Your task to perform on an android device: turn off javascript in the chrome app Image 0: 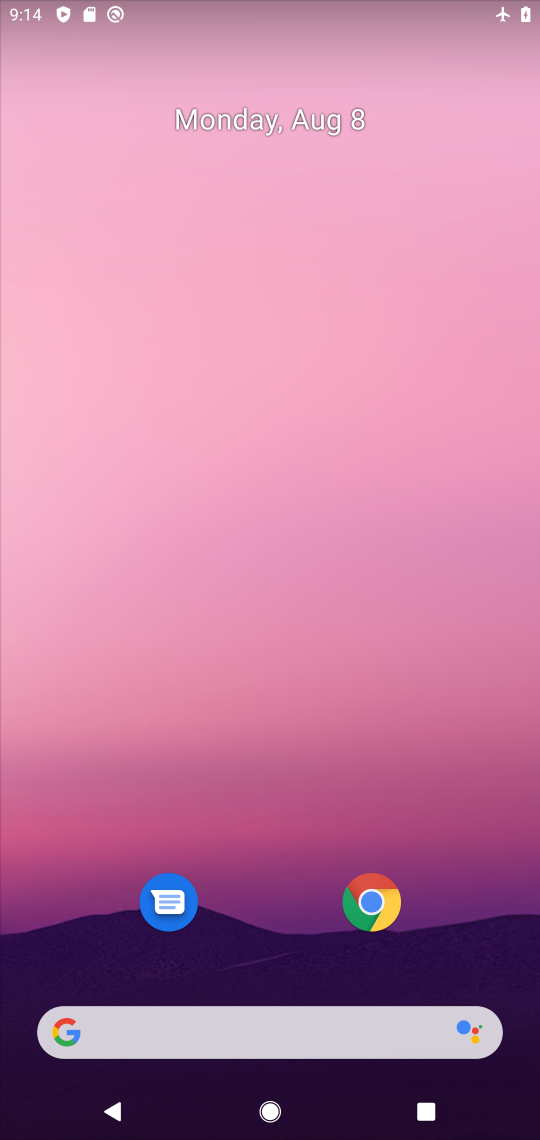
Step 0: click (364, 903)
Your task to perform on an android device: turn off javascript in the chrome app Image 1: 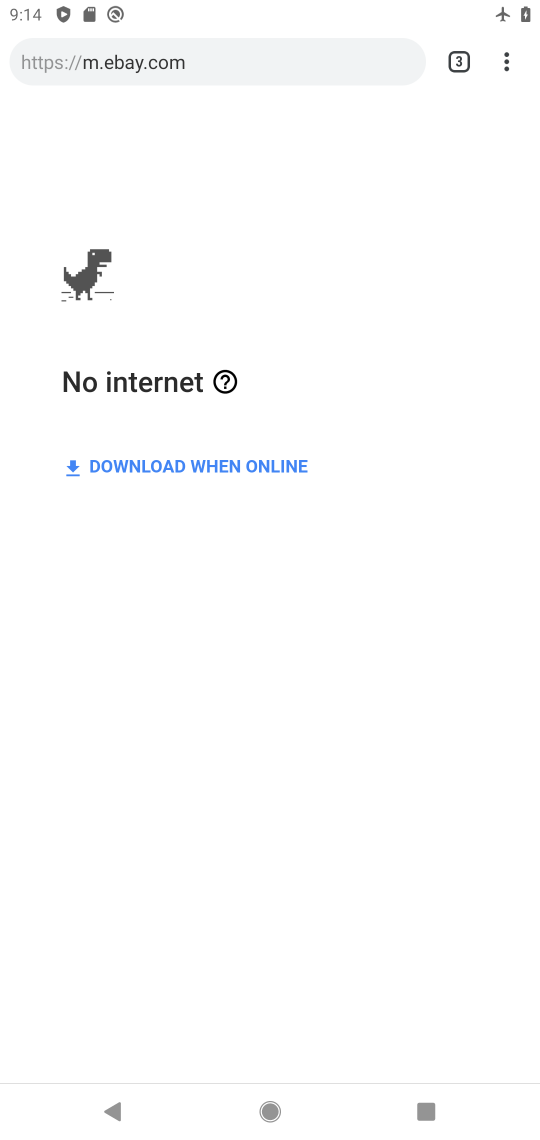
Step 1: click (509, 77)
Your task to perform on an android device: turn off javascript in the chrome app Image 2: 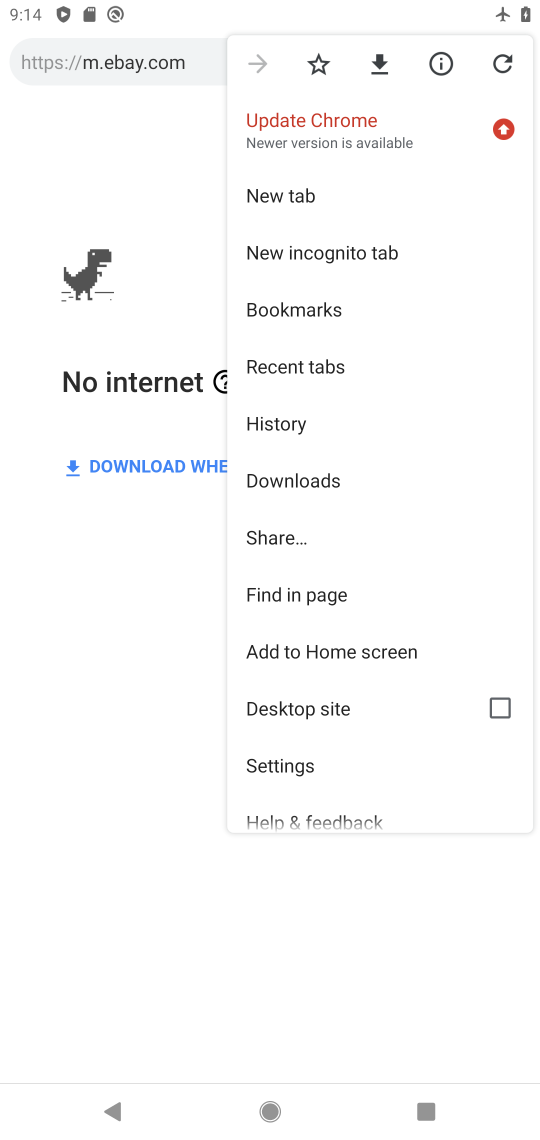
Step 2: click (275, 774)
Your task to perform on an android device: turn off javascript in the chrome app Image 3: 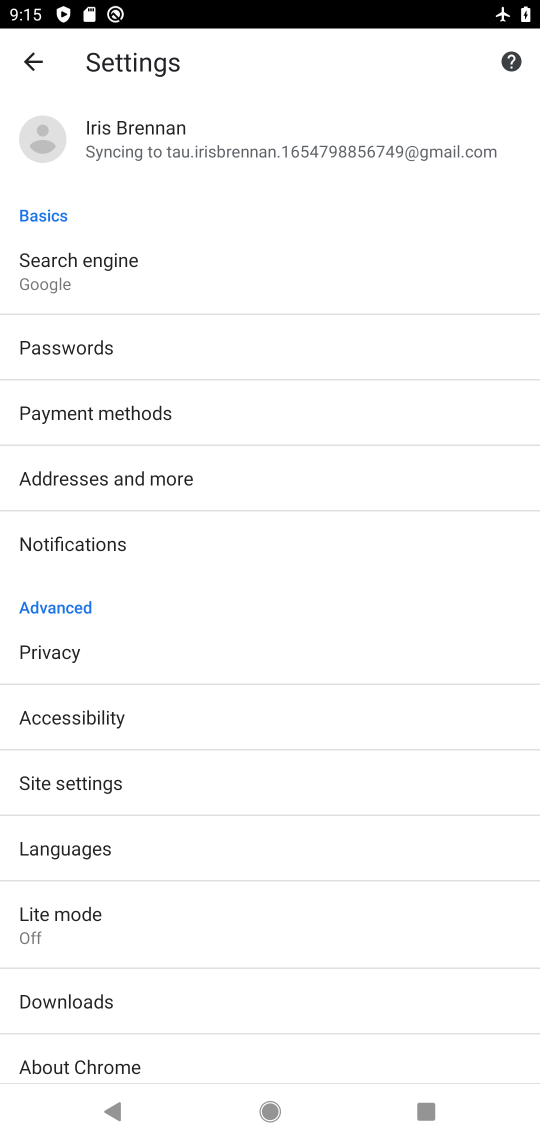
Step 3: click (67, 800)
Your task to perform on an android device: turn off javascript in the chrome app Image 4: 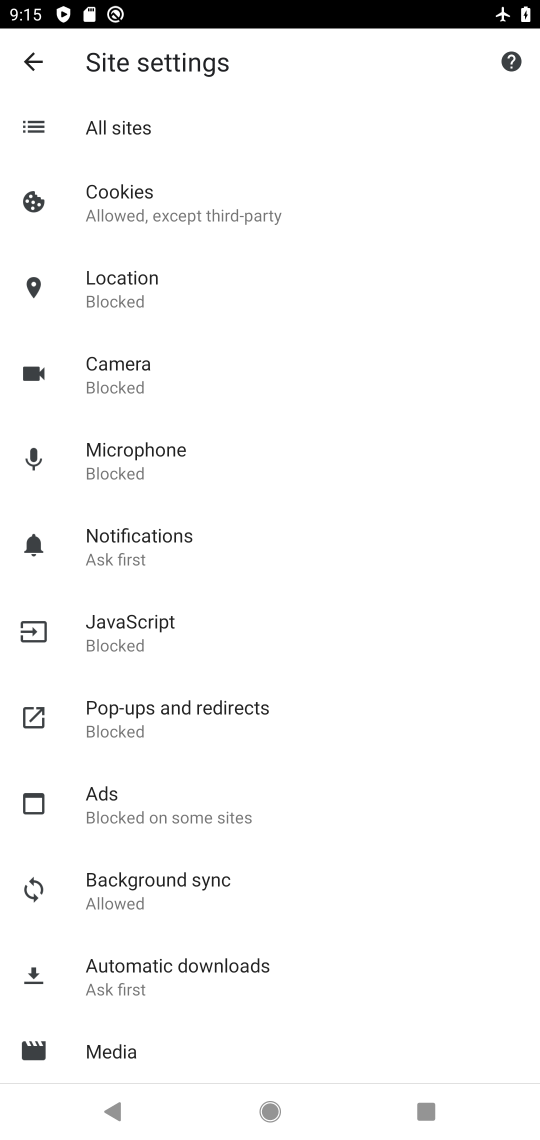
Step 4: click (87, 642)
Your task to perform on an android device: turn off javascript in the chrome app Image 5: 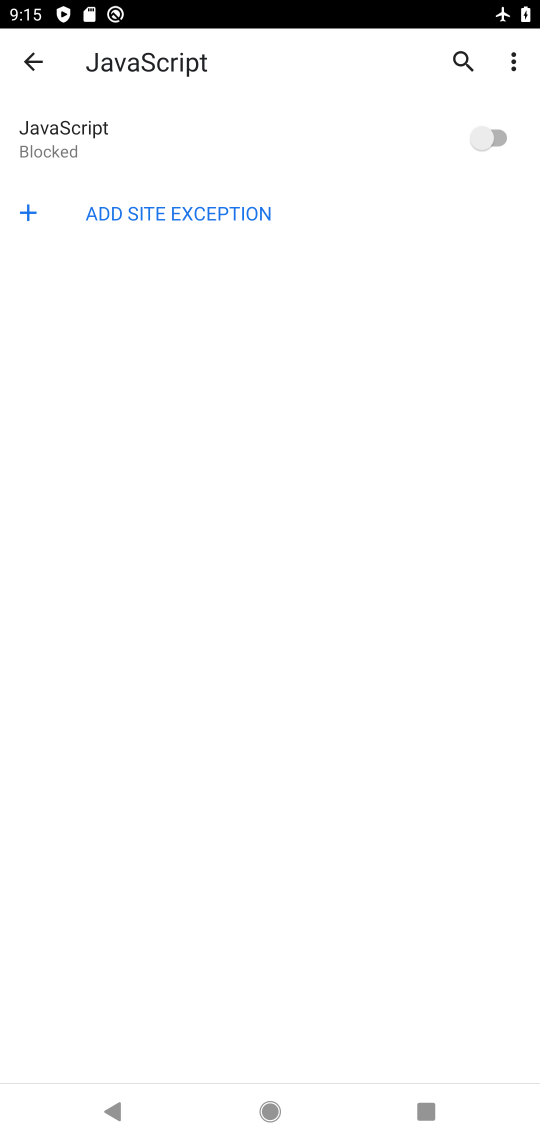
Step 5: task complete